Your task to perform on an android device: turn off notifications settings in the gmail app Image 0: 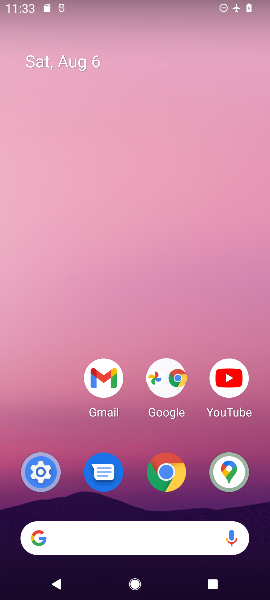
Step 0: drag from (155, 579) to (106, 310)
Your task to perform on an android device: turn off notifications settings in the gmail app Image 1: 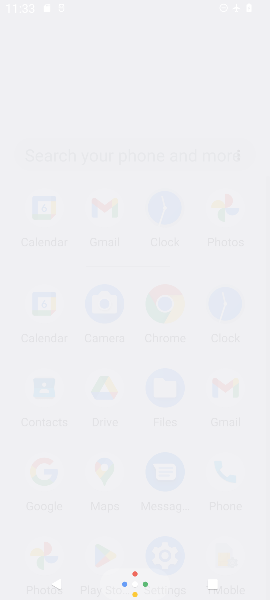
Step 1: drag from (181, 502) to (164, 311)
Your task to perform on an android device: turn off notifications settings in the gmail app Image 2: 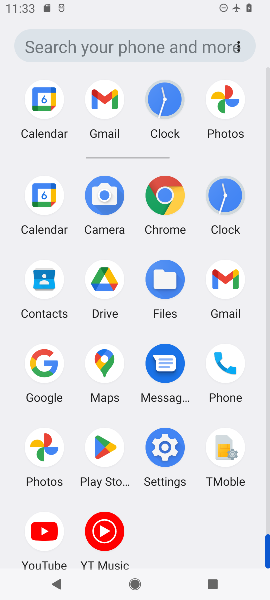
Step 2: click (215, 274)
Your task to perform on an android device: turn off notifications settings in the gmail app Image 3: 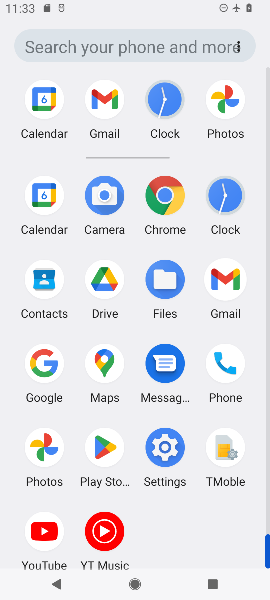
Step 3: click (225, 277)
Your task to perform on an android device: turn off notifications settings in the gmail app Image 4: 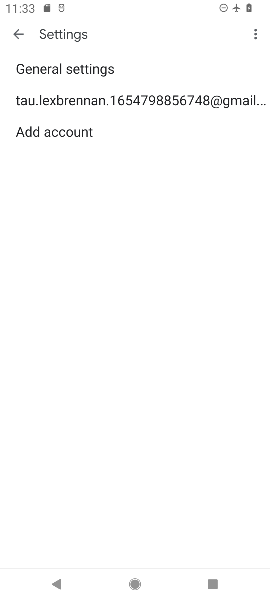
Step 4: click (81, 99)
Your task to perform on an android device: turn off notifications settings in the gmail app Image 5: 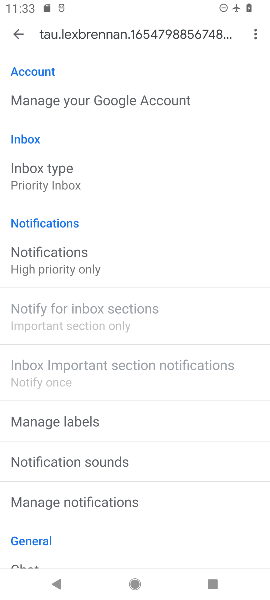
Step 5: click (47, 260)
Your task to perform on an android device: turn off notifications settings in the gmail app Image 6: 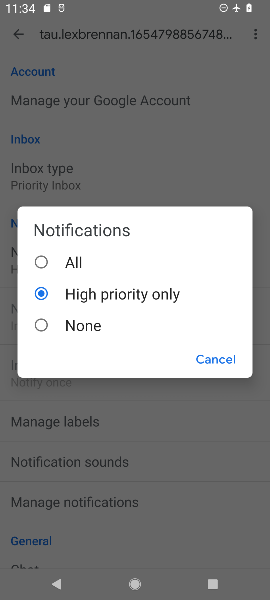
Step 6: click (42, 326)
Your task to perform on an android device: turn off notifications settings in the gmail app Image 7: 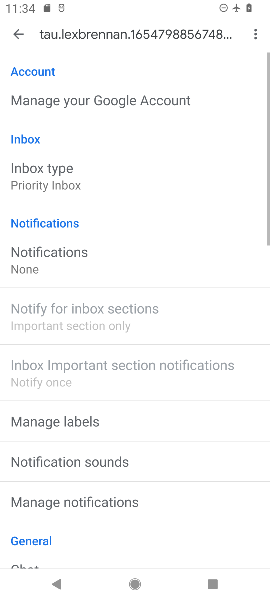
Step 7: task complete